Your task to perform on an android device: Go to ESPN.com Image 0: 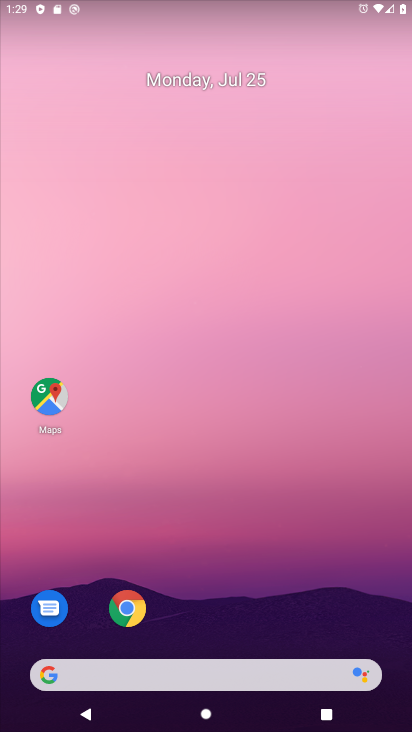
Step 0: drag from (238, 558) to (277, 36)
Your task to perform on an android device: Go to ESPN.com Image 1: 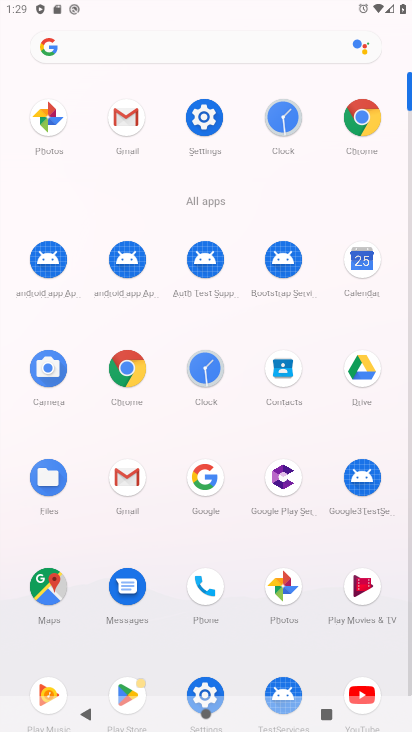
Step 1: click (360, 114)
Your task to perform on an android device: Go to ESPN.com Image 2: 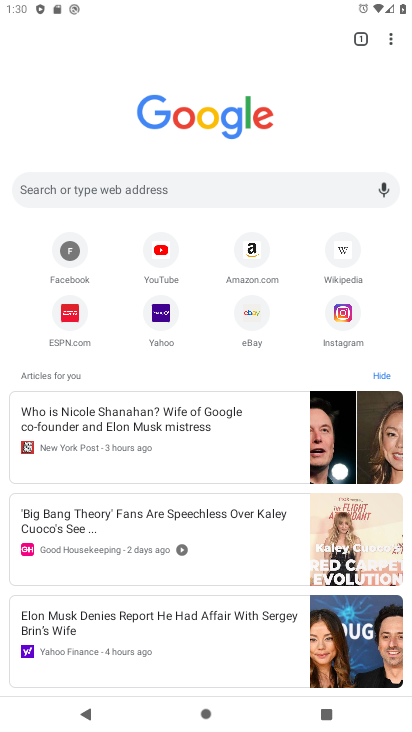
Step 2: click (59, 317)
Your task to perform on an android device: Go to ESPN.com Image 3: 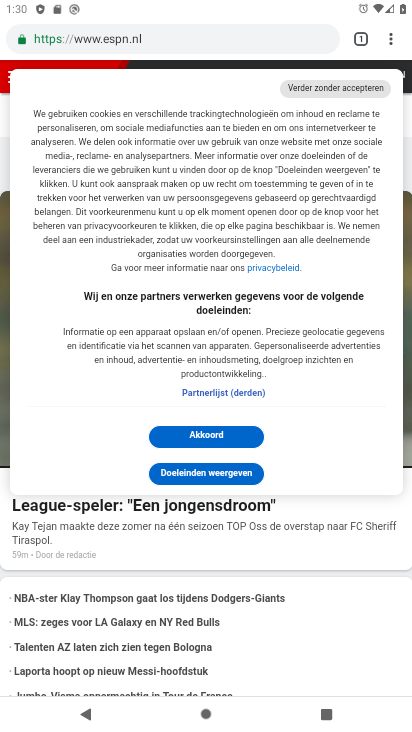
Step 3: task complete